Your task to perform on an android device: Open Google Chrome and open the bookmarks view Image 0: 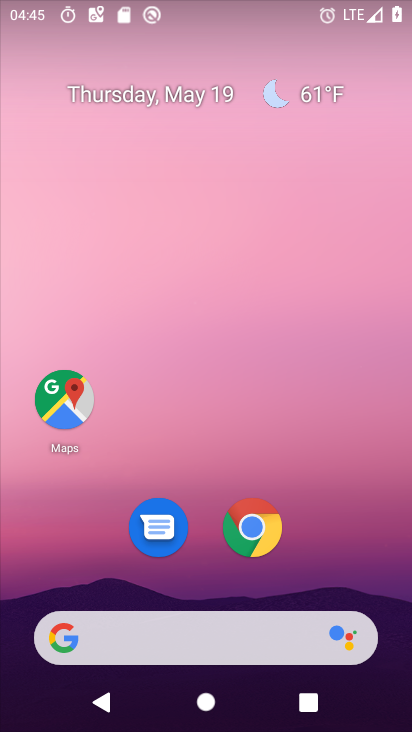
Step 0: click (278, 526)
Your task to perform on an android device: Open Google Chrome and open the bookmarks view Image 1: 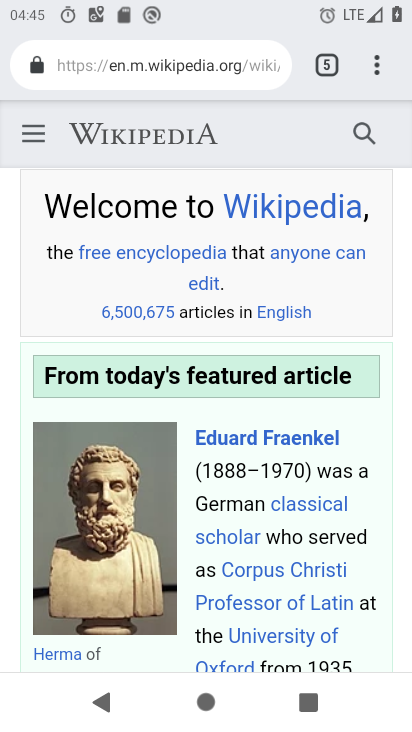
Step 1: task complete